Your task to perform on an android device: Show me productivity apps on the Play Store Image 0: 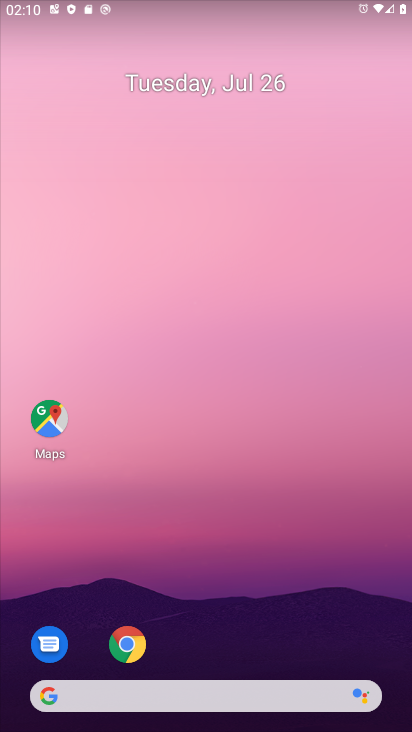
Step 0: drag from (262, 648) to (257, 205)
Your task to perform on an android device: Show me productivity apps on the Play Store Image 1: 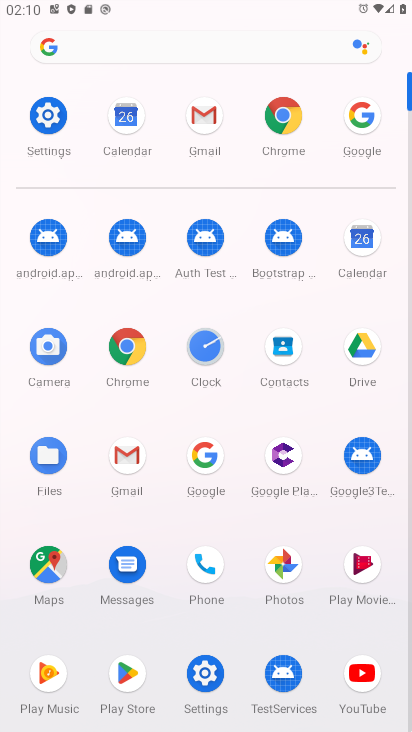
Step 1: click (117, 681)
Your task to perform on an android device: Show me productivity apps on the Play Store Image 2: 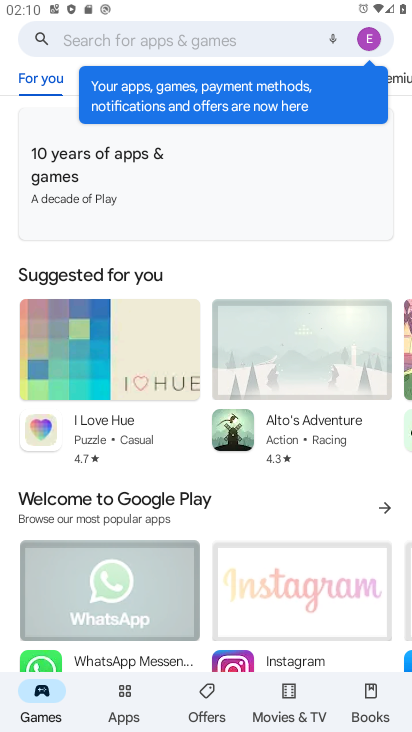
Step 2: click (121, 697)
Your task to perform on an android device: Show me productivity apps on the Play Store Image 3: 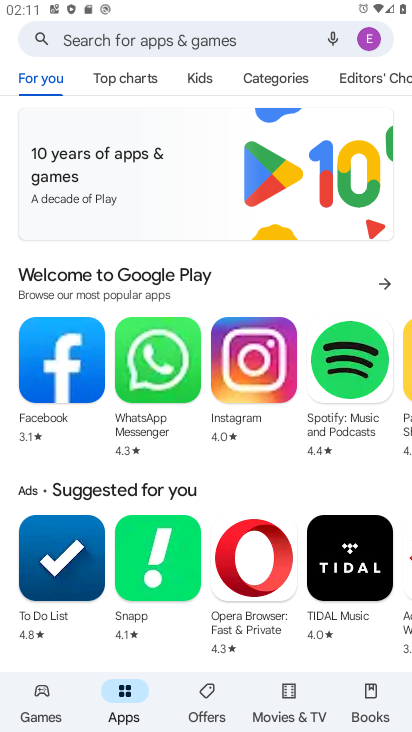
Step 3: task complete